Your task to perform on an android device: Open Chrome and go to settings Image 0: 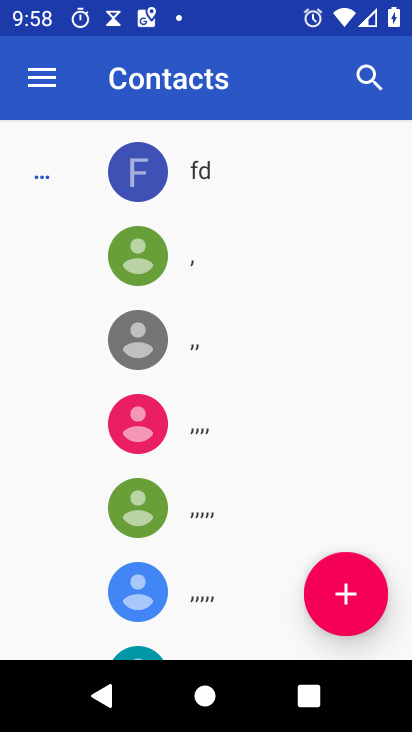
Step 0: press home button
Your task to perform on an android device: Open Chrome and go to settings Image 1: 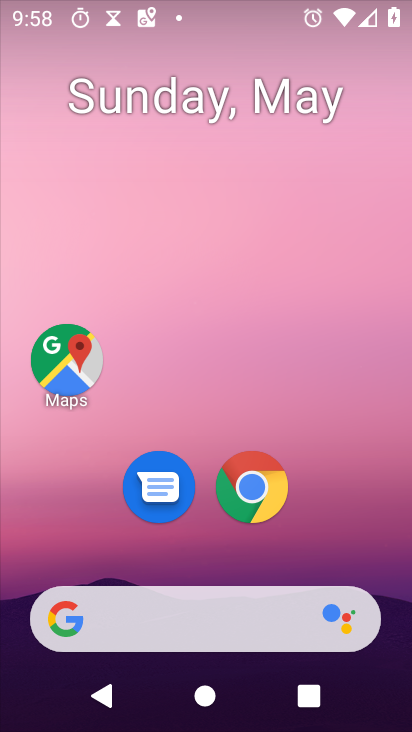
Step 1: drag from (364, 545) to (336, 0)
Your task to perform on an android device: Open Chrome and go to settings Image 2: 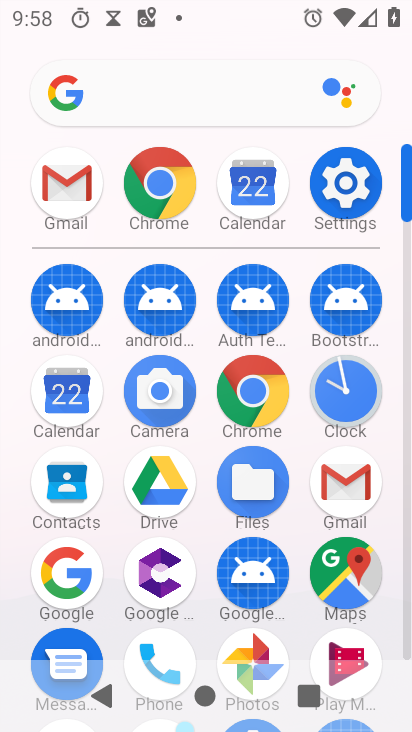
Step 2: click (181, 179)
Your task to perform on an android device: Open Chrome and go to settings Image 3: 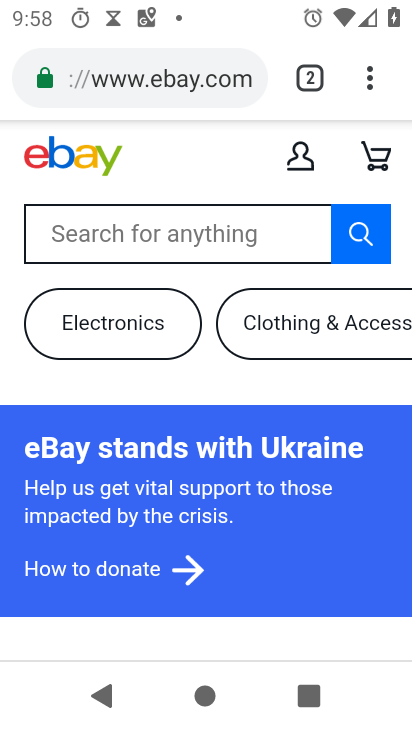
Step 3: task complete